Your task to perform on an android device: change the clock style Image 0: 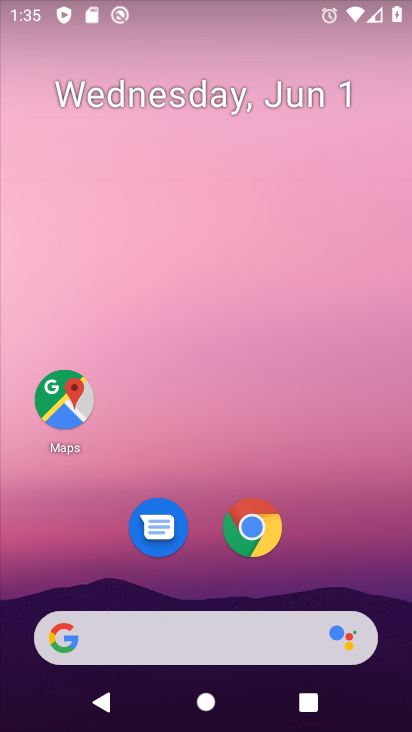
Step 0: drag from (365, 592) to (220, 78)
Your task to perform on an android device: change the clock style Image 1: 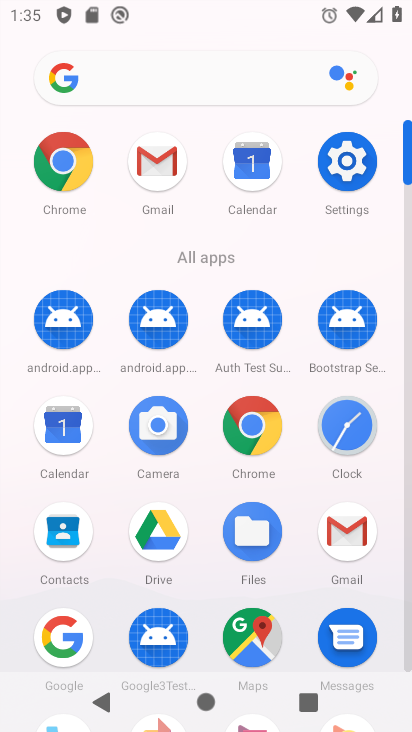
Step 1: click (350, 439)
Your task to perform on an android device: change the clock style Image 2: 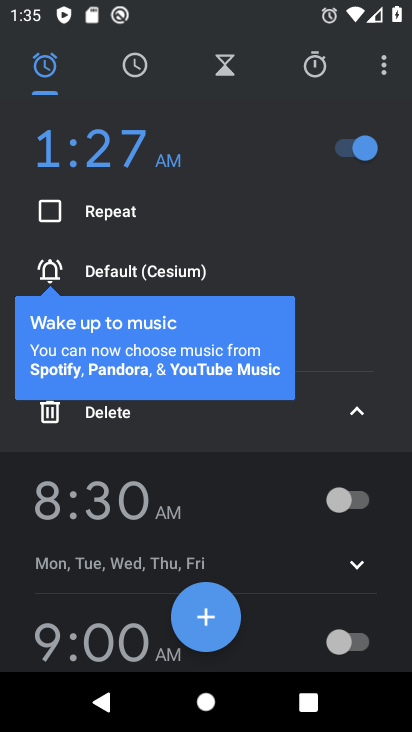
Step 2: click (381, 69)
Your task to perform on an android device: change the clock style Image 3: 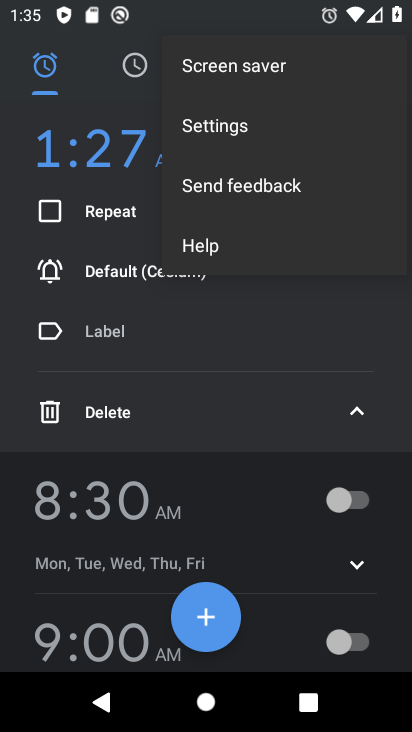
Step 3: click (275, 117)
Your task to perform on an android device: change the clock style Image 4: 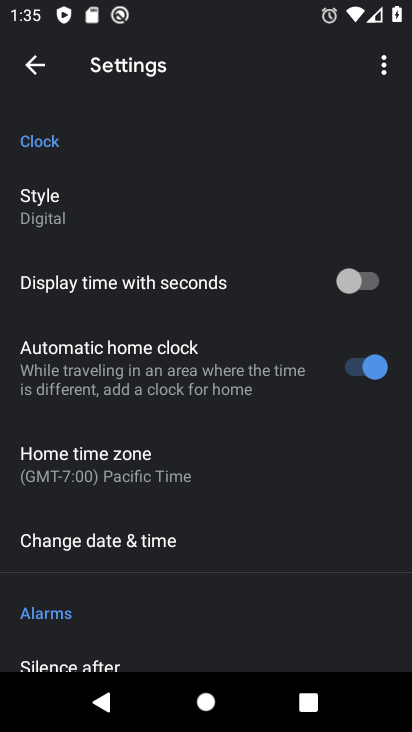
Step 4: click (215, 199)
Your task to perform on an android device: change the clock style Image 5: 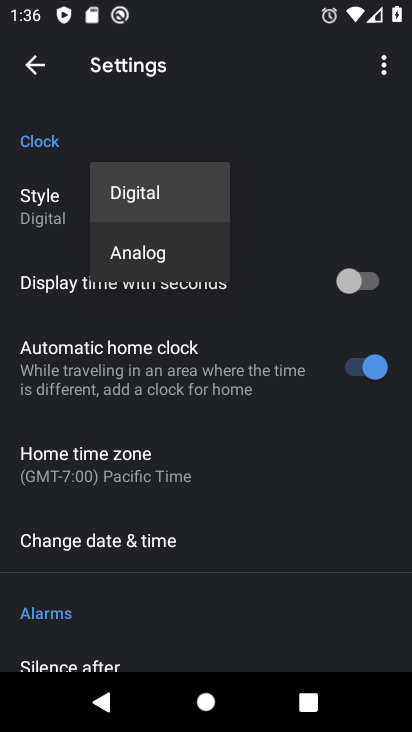
Step 5: click (196, 248)
Your task to perform on an android device: change the clock style Image 6: 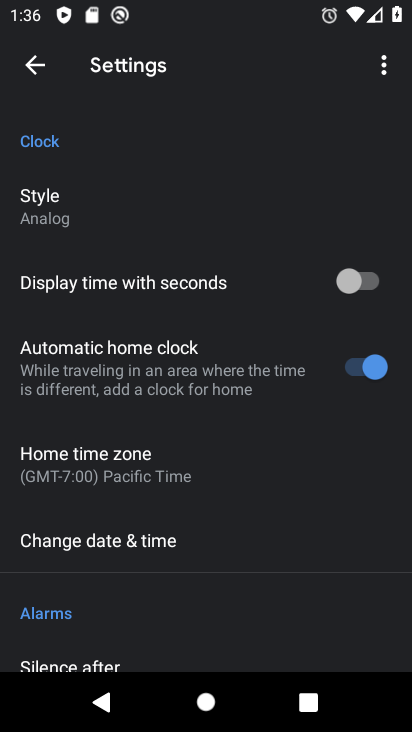
Step 6: task complete